Your task to perform on an android device: allow cookies in the chrome app Image 0: 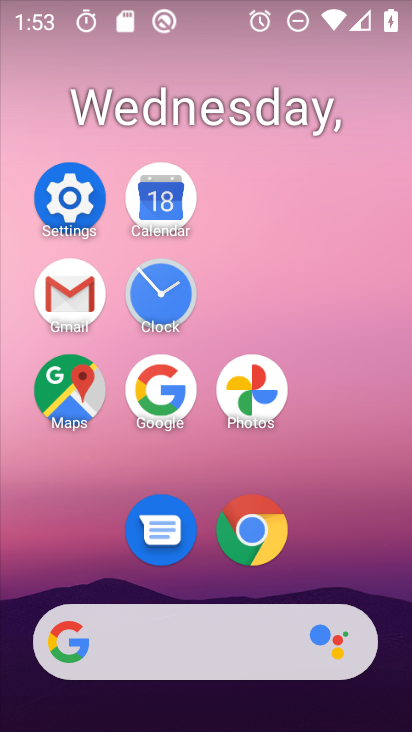
Step 0: click (262, 517)
Your task to perform on an android device: allow cookies in the chrome app Image 1: 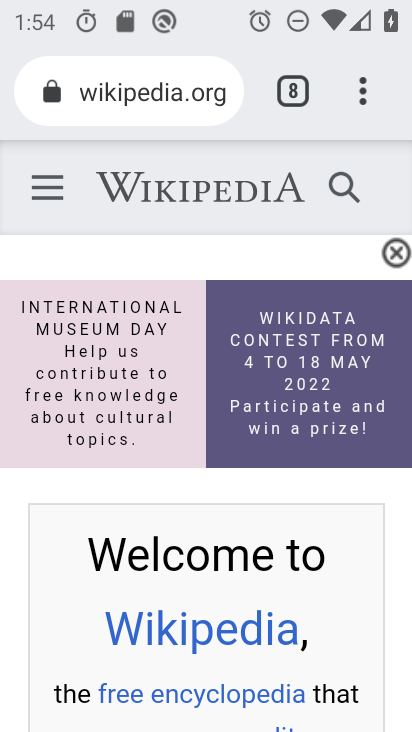
Step 1: click (363, 86)
Your task to perform on an android device: allow cookies in the chrome app Image 2: 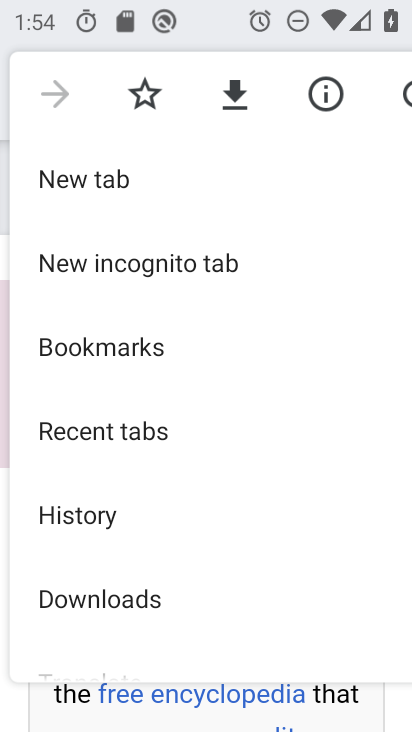
Step 2: drag from (284, 529) to (337, 100)
Your task to perform on an android device: allow cookies in the chrome app Image 3: 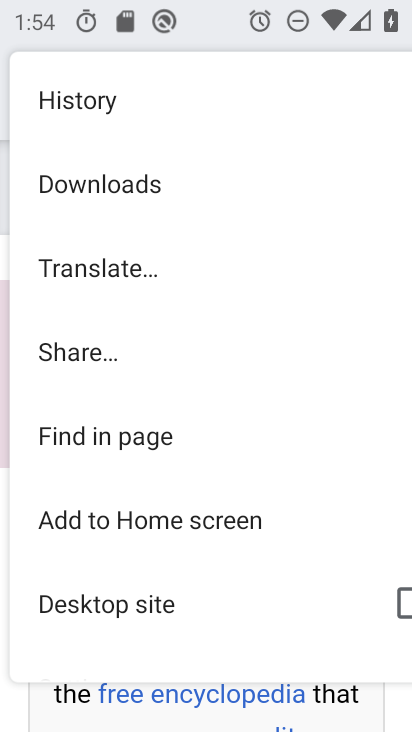
Step 3: drag from (200, 577) to (284, 174)
Your task to perform on an android device: allow cookies in the chrome app Image 4: 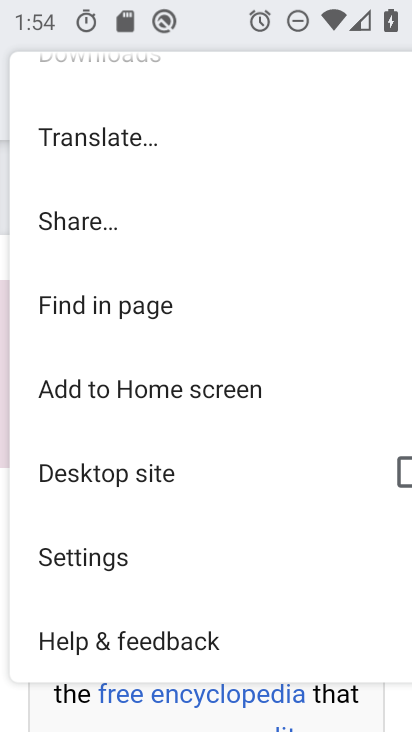
Step 4: click (208, 577)
Your task to perform on an android device: allow cookies in the chrome app Image 5: 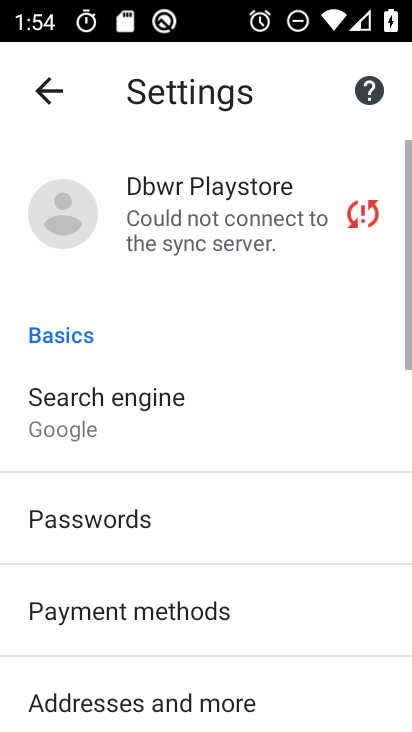
Step 5: drag from (208, 577) to (254, 233)
Your task to perform on an android device: allow cookies in the chrome app Image 6: 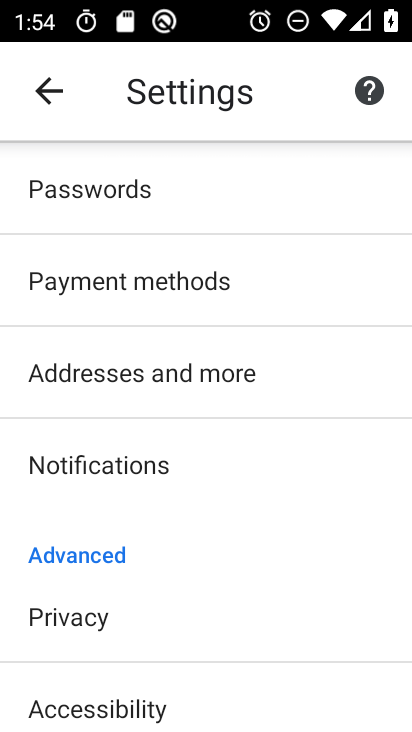
Step 6: drag from (181, 600) to (286, 212)
Your task to perform on an android device: allow cookies in the chrome app Image 7: 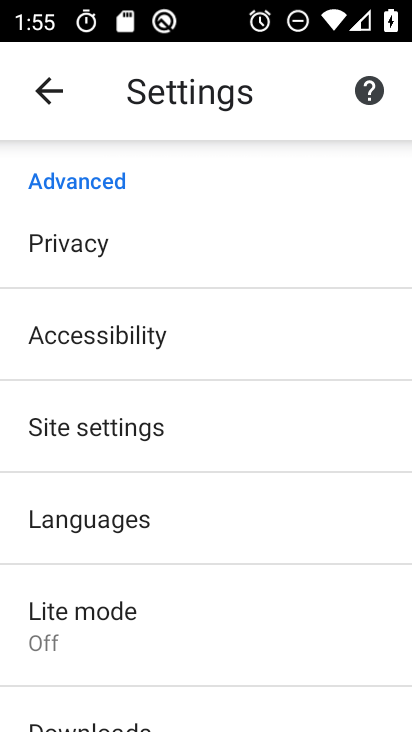
Step 7: click (89, 420)
Your task to perform on an android device: allow cookies in the chrome app Image 8: 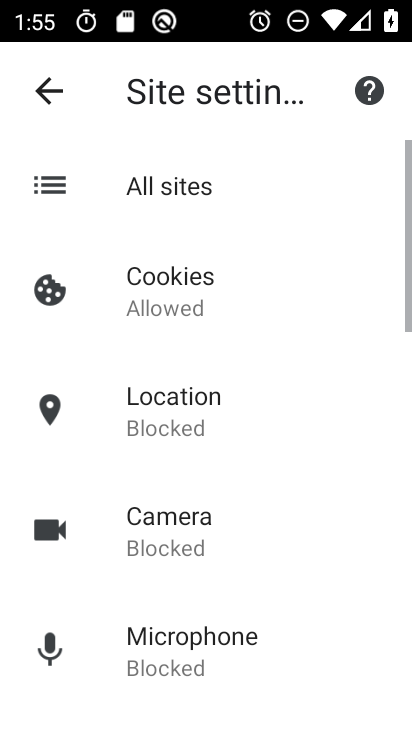
Step 8: click (206, 273)
Your task to perform on an android device: allow cookies in the chrome app Image 9: 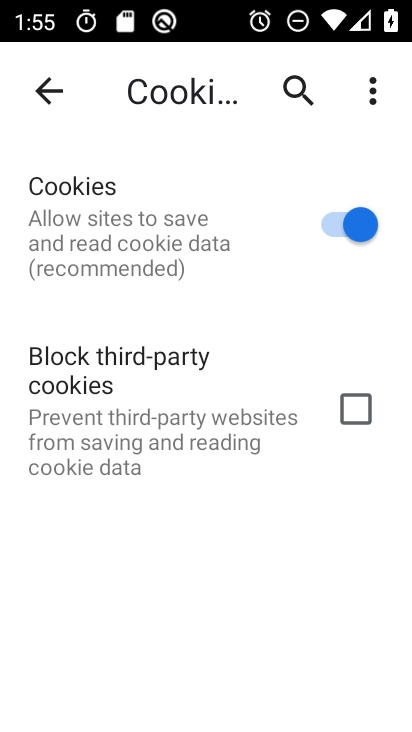
Step 9: task complete